Your task to perform on an android device: Open Google Maps Image 0: 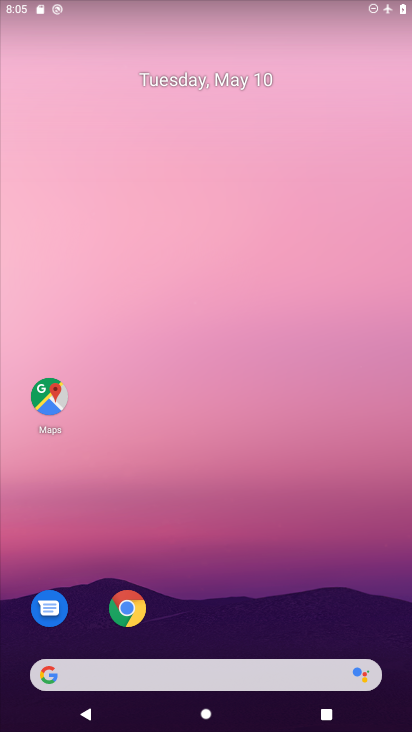
Step 0: drag from (255, 597) to (257, 234)
Your task to perform on an android device: Open Google Maps Image 1: 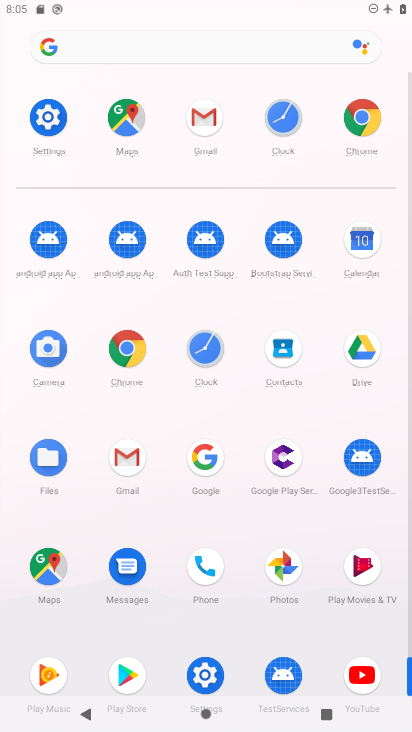
Step 1: click (119, 115)
Your task to perform on an android device: Open Google Maps Image 2: 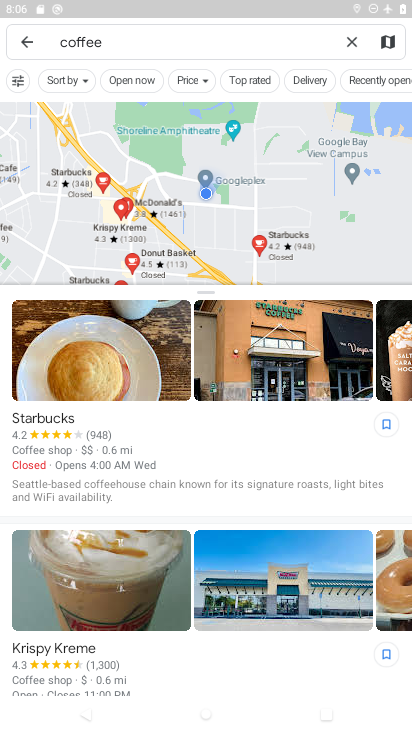
Step 2: click (356, 33)
Your task to perform on an android device: Open Google Maps Image 3: 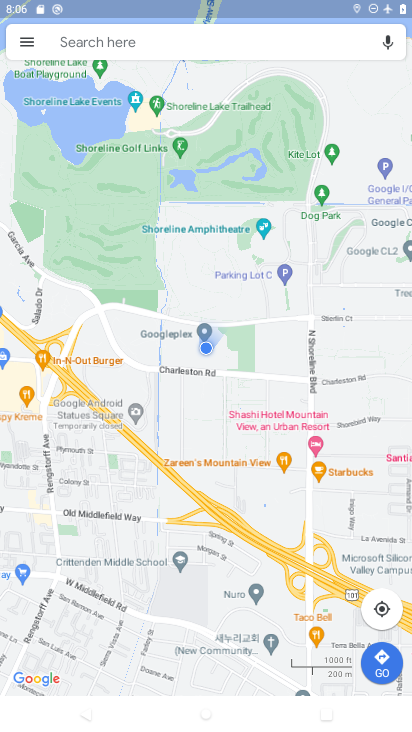
Step 3: task complete